Your task to perform on an android device: change the clock style Image 0: 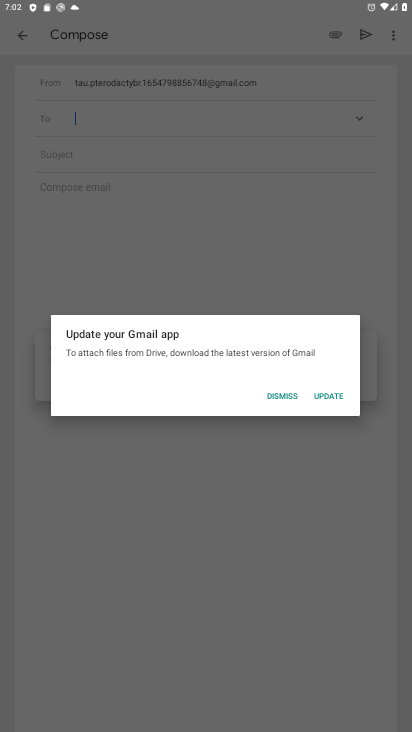
Step 0: press home button
Your task to perform on an android device: change the clock style Image 1: 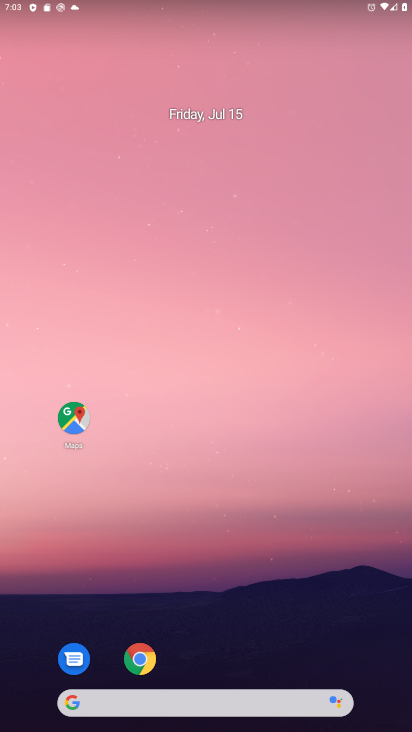
Step 1: drag from (377, 656) to (271, 145)
Your task to perform on an android device: change the clock style Image 2: 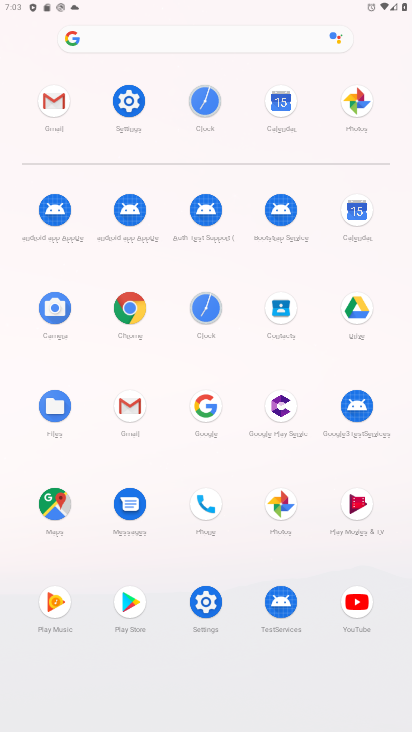
Step 2: click (201, 305)
Your task to perform on an android device: change the clock style Image 3: 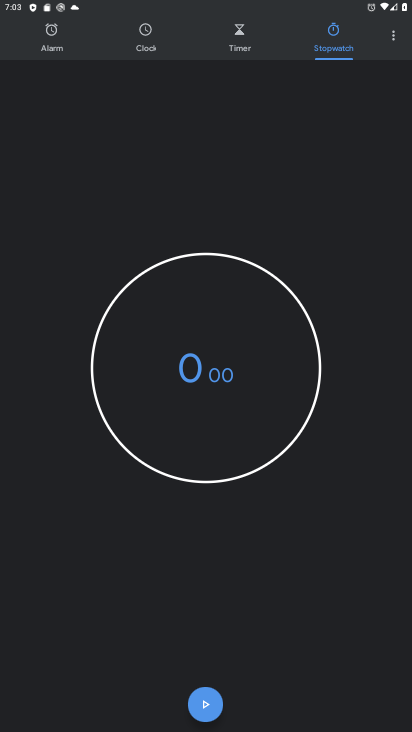
Step 3: click (393, 42)
Your task to perform on an android device: change the clock style Image 4: 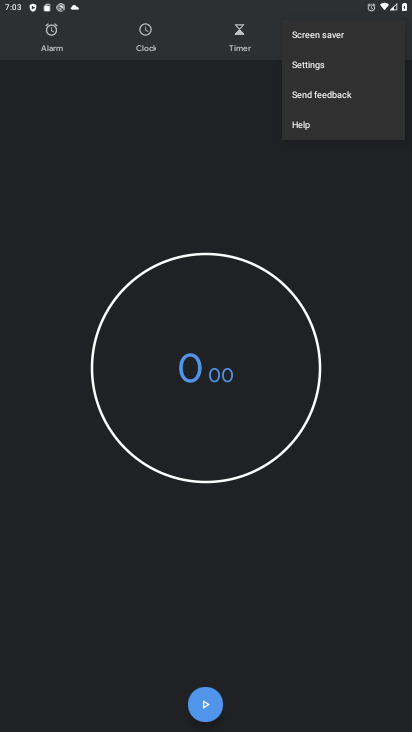
Step 4: click (305, 68)
Your task to perform on an android device: change the clock style Image 5: 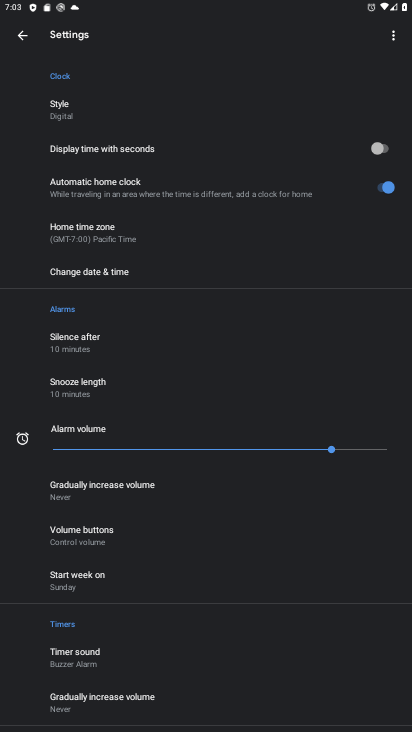
Step 5: click (66, 115)
Your task to perform on an android device: change the clock style Image 6: 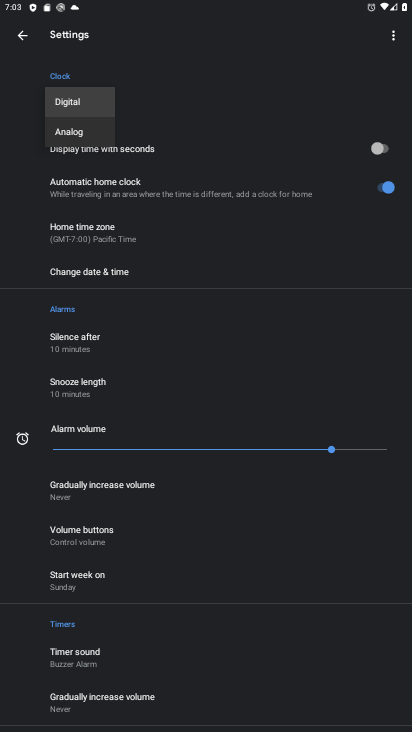
Step 6: click (78, 137)
Your task to perform on an android device: change the clock style Image 7: 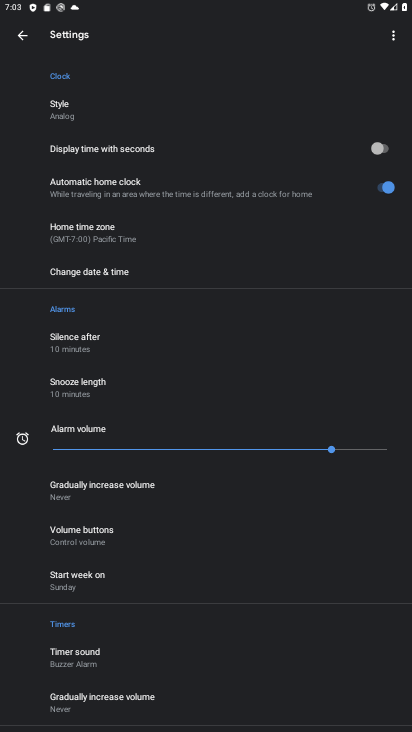
Step 7: task complete